Your task to perform on an android device: Show me the alarms in the clock app Image 0: 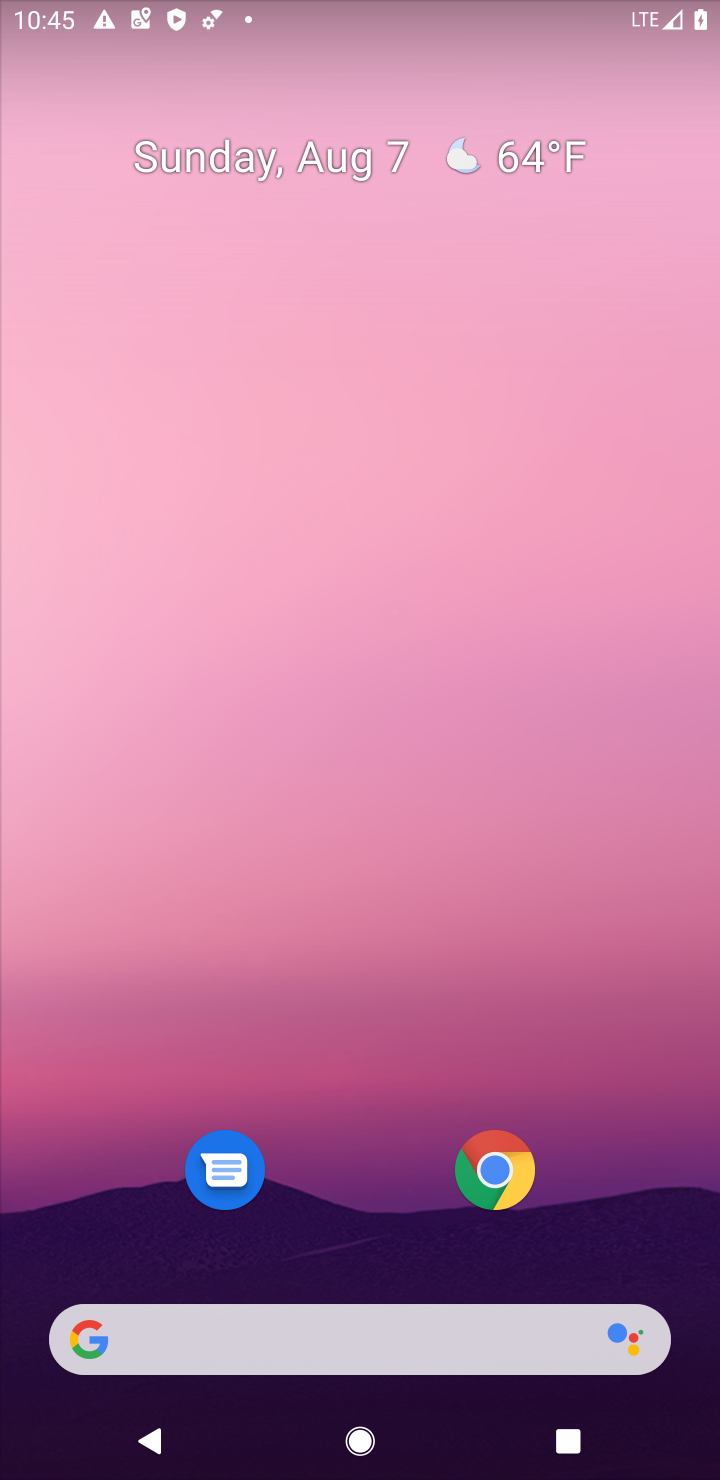
Step 0: drag from (383, 1329) to (420, 239)
Your task to perform on an android device: Show me the alarms in the clock app Image 1: 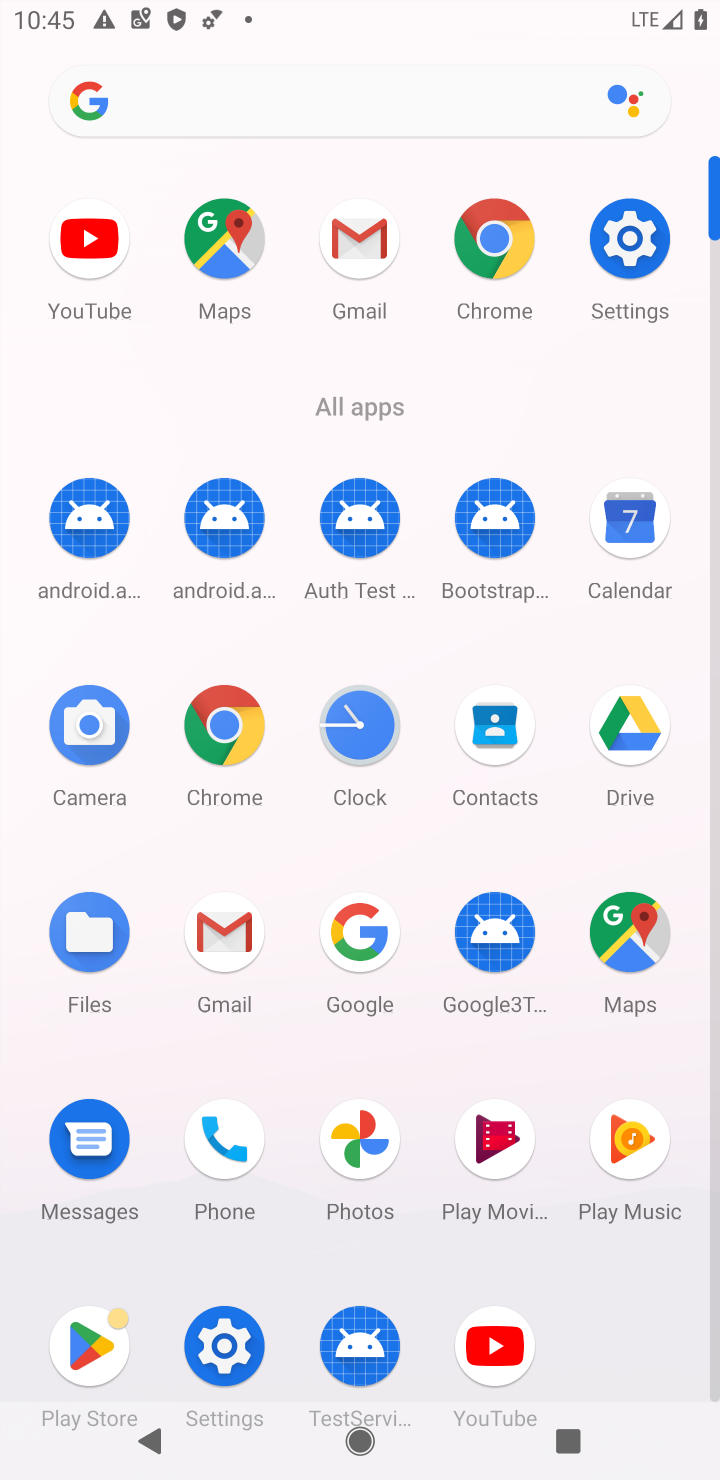
Step 1: click (347, 696)
Your task to perform on an android device: Show me the alarms in the clock app Image 2: 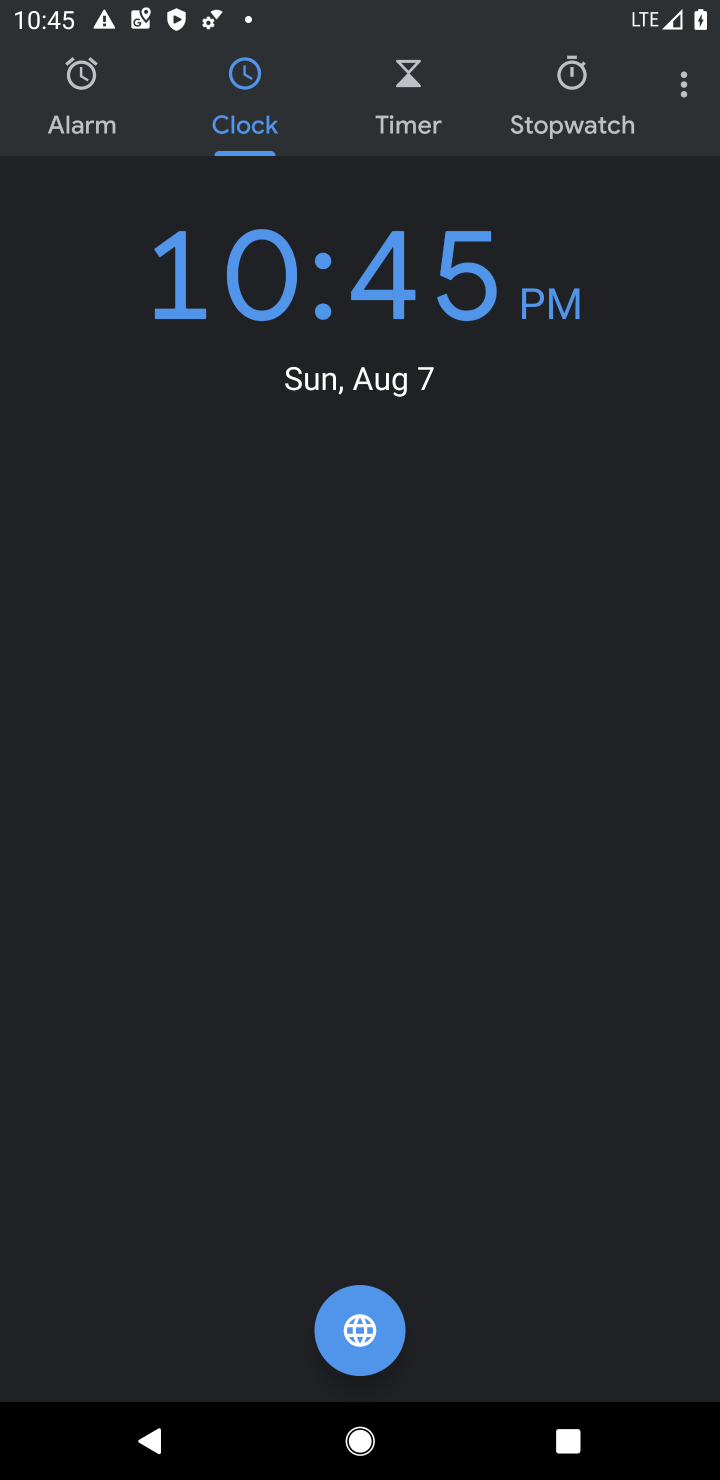
Step 2: click (99, 77)
Your task to perform on an android device: Show me the alarms in the clock app Image 3: 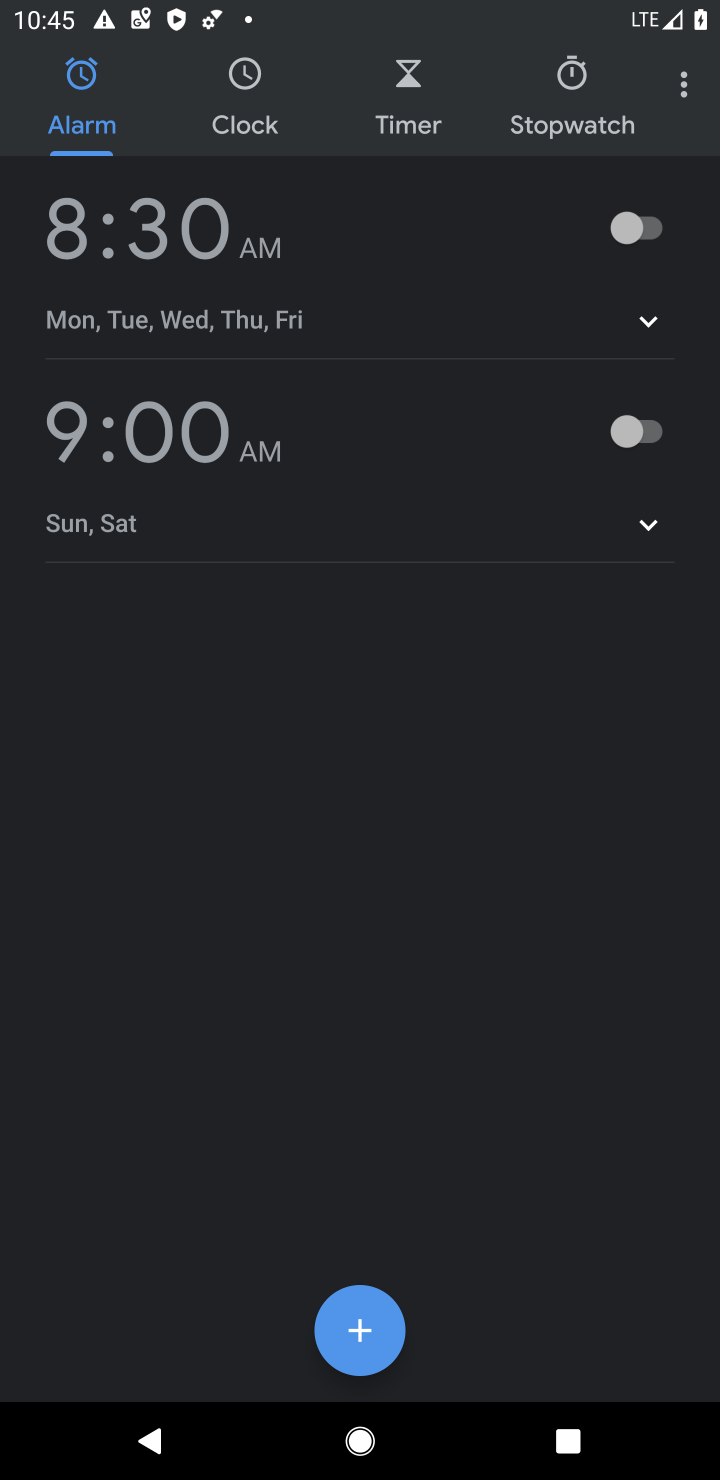
Step 3: click (649, 242)
Your task to perform on an android device: Show me the alarms in the clock app Image 4: 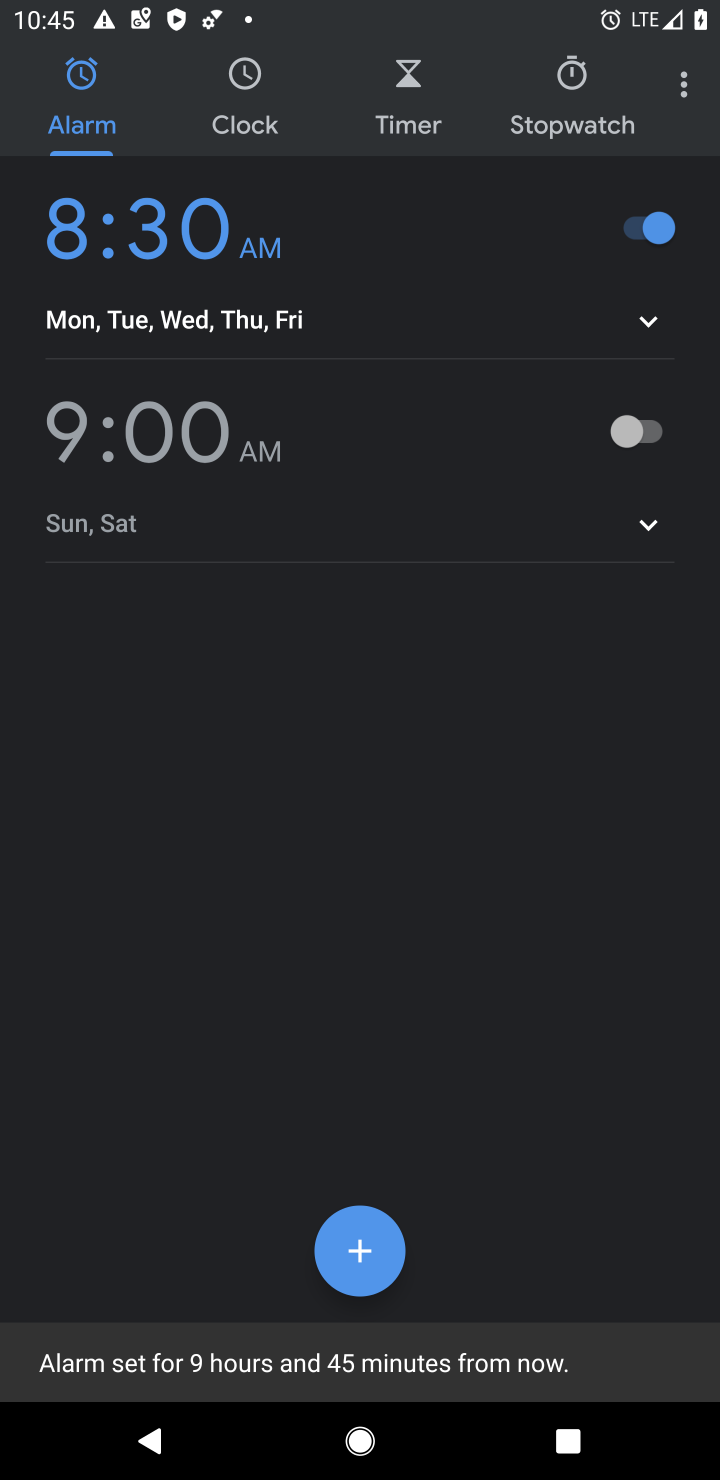
Step 4: task complete